Your task to perform on an android device: Open settings on Google Maps Image 0: 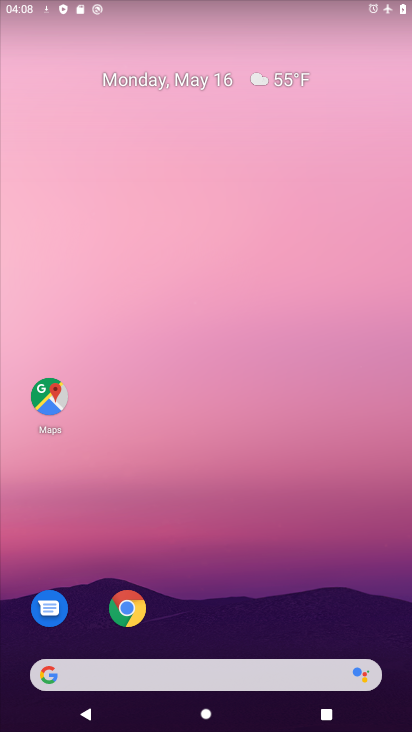
Step 0: click (50, 395)
Your task to perform on an android device: Open settings on Google Maps Image 1: 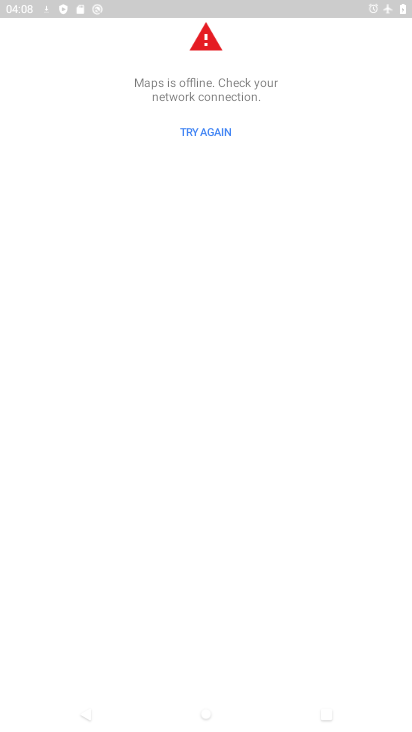
Step 1: task complete